Your task to perform on an android device: Open notification settings Image 0: 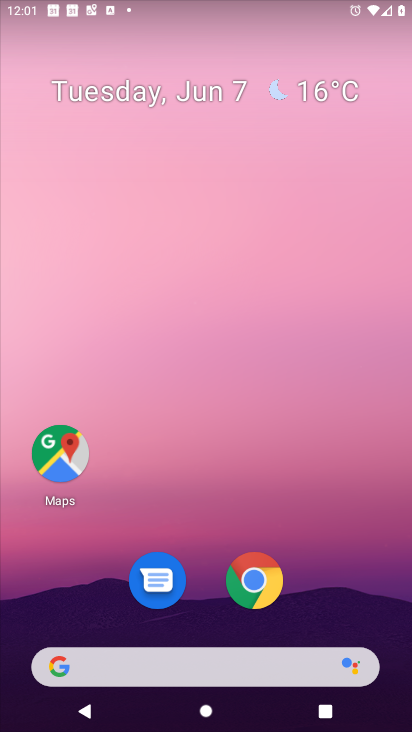
Step 0: drag from (348, 592) to (364, 110)
Your task to perform on an android device: Open notification settings Image 1: 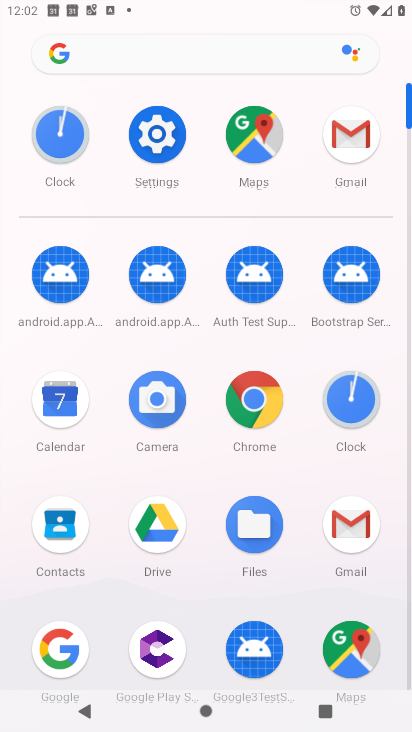
Step 1: click (154, 154)
Your task to perform on an android device: Open notification settings Image 2: 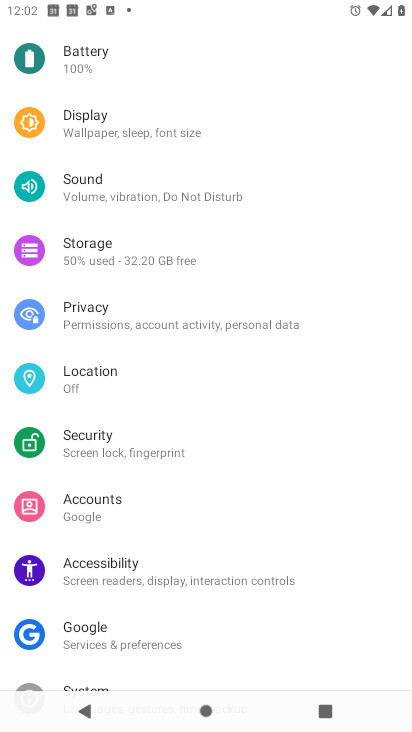
Step 2: drag from (150, 139) to (118, 512)
Your task to perform on an android device: Open notification settings Image 3: 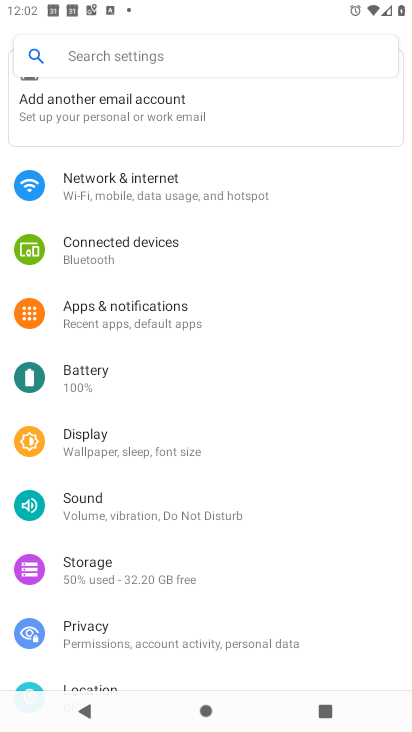
Step 3: drag from (196, 111) to (174, 495)
Your task to perform on an android device: Open notification settings Image 4: 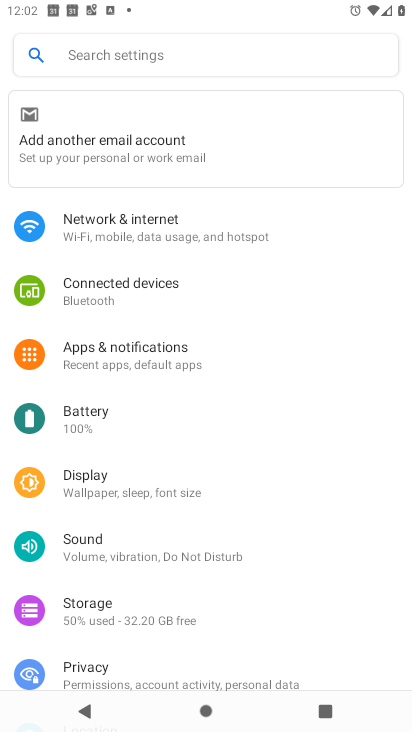
Step 4: click (141, 222)
Your task to perform on an android device: Open notification settings Image 5: 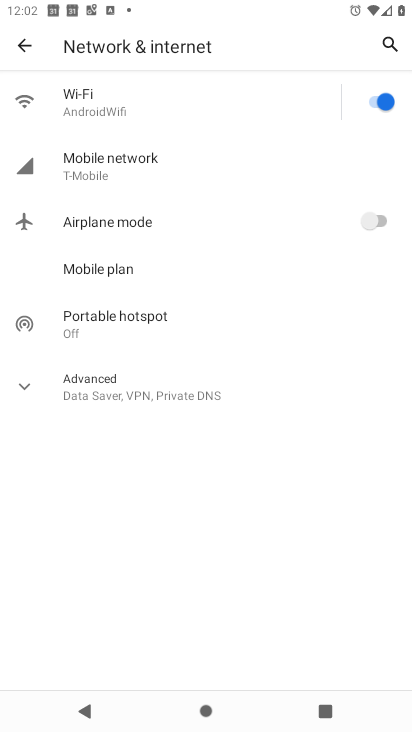
Step 5: task complete